Your task to perform on an android device: add a contact in the contacts app Image 0: 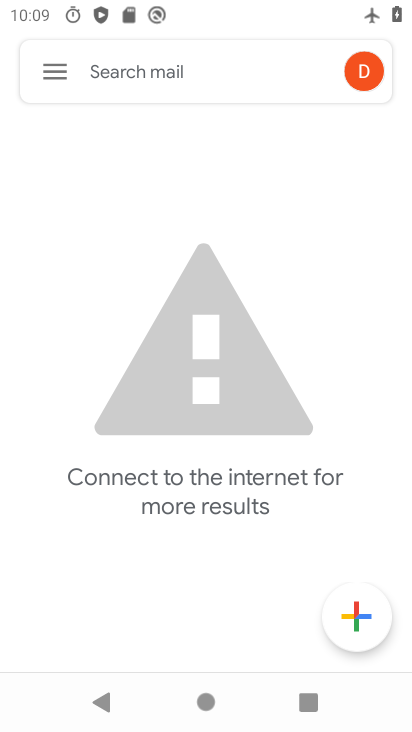
Step 0: press home button
Your task to perform on an android device: add a contact in the contacts app Image 1: 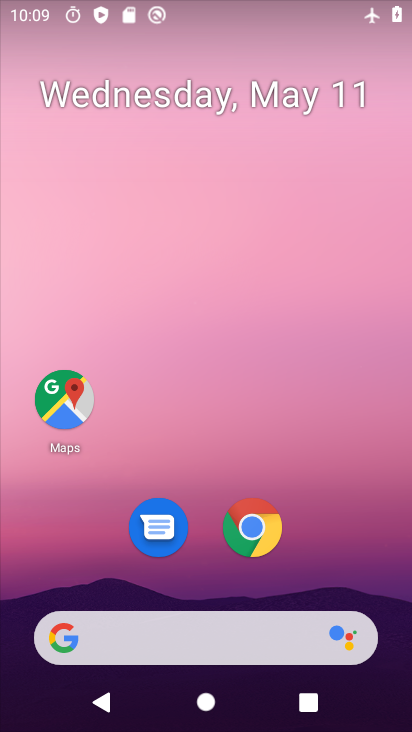
Step 1: drag from (302, 572) to (318, 301)
Your task to perform on an android device: add a contact in the contacts app Image 2: 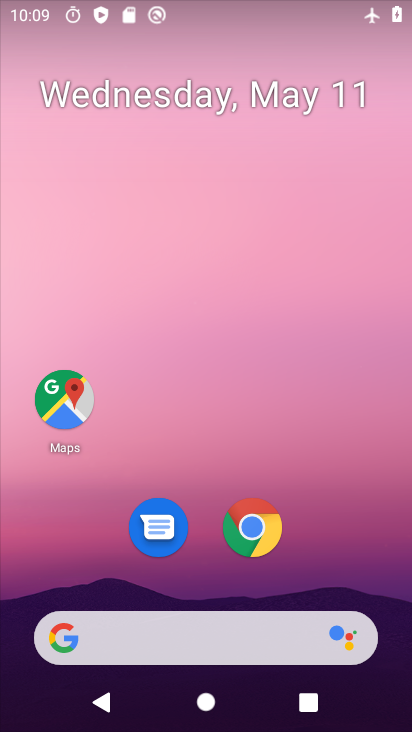
Step 2: drag from (276, 598) to (300, 277)
Your task to perform on an android device: add a contact in the contacts app Image 3: 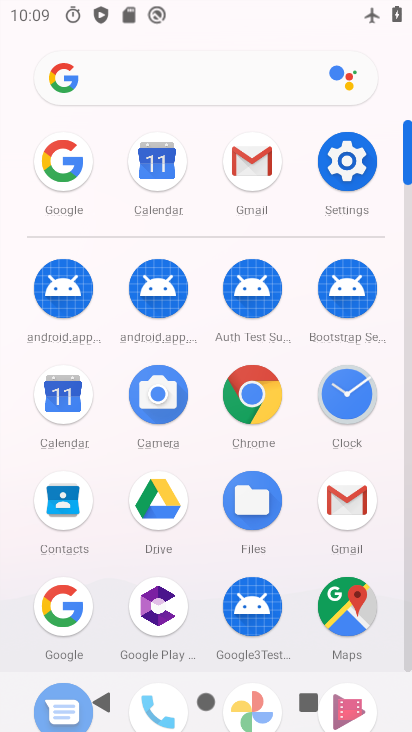
Step 3: drag from (368, 403) to (377, 276)
Your task to perform on an android device: add a contact in the contacts app Image 4: 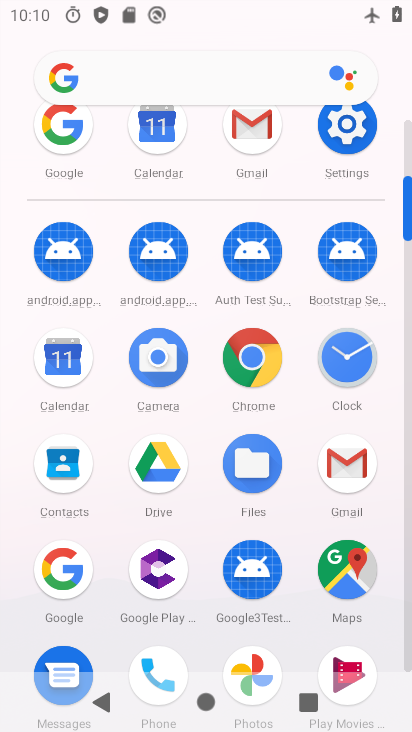
Step 4: click (69, 464)
Your task to perform on an android device: add a contact in the contacts app Image 5: 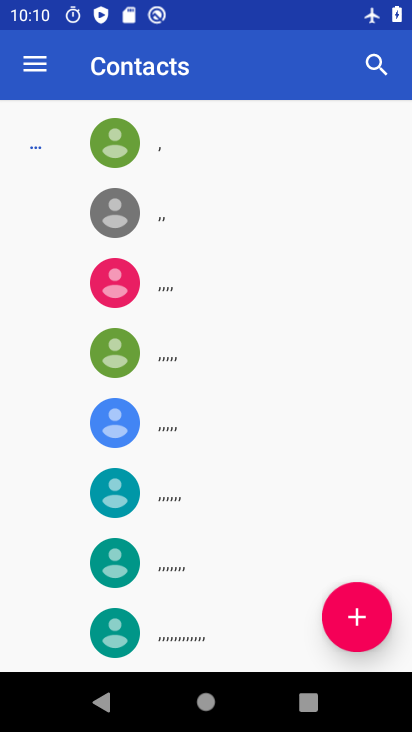
Step 5: click (337, 609)
Your task to perform on an android device: add a contact in the contacts app Image 6: 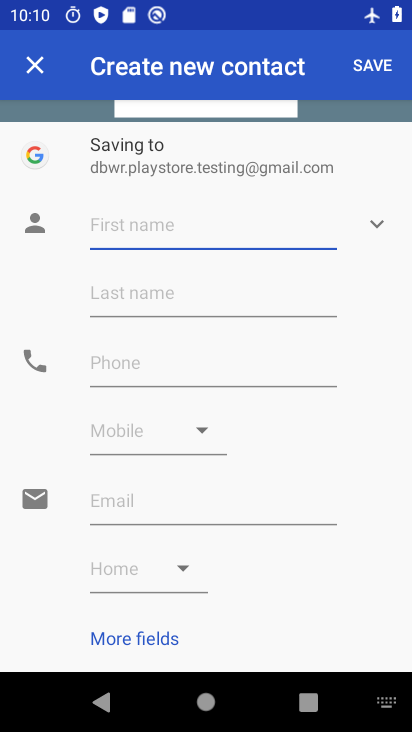
Step 6: type "google"
Your task to perform on an android device: add a contact in the contacts app Image 7: 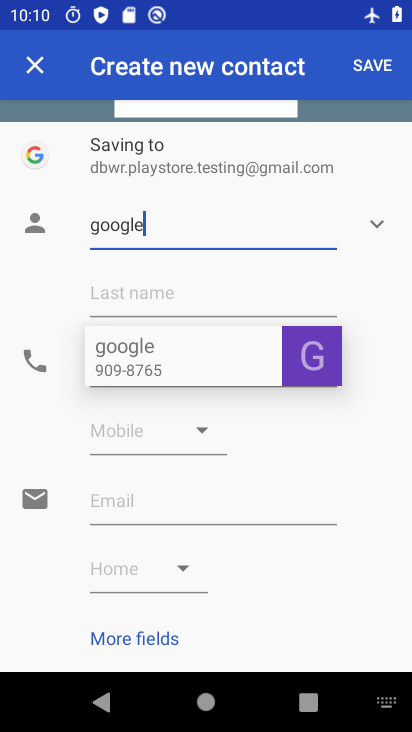
Step 7: click (215, 234)
Your task to perform on an android device: add a contact in the contacts app Image 8: 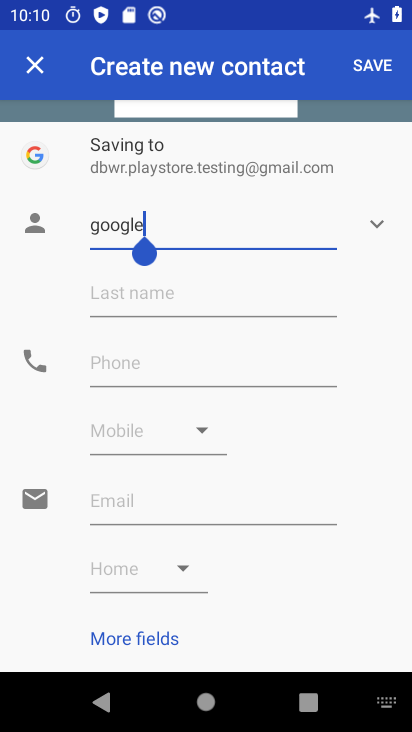
Step 8: click (215, 234)
Your task to perform on an android device: add a contact in the contacts app Image 9: 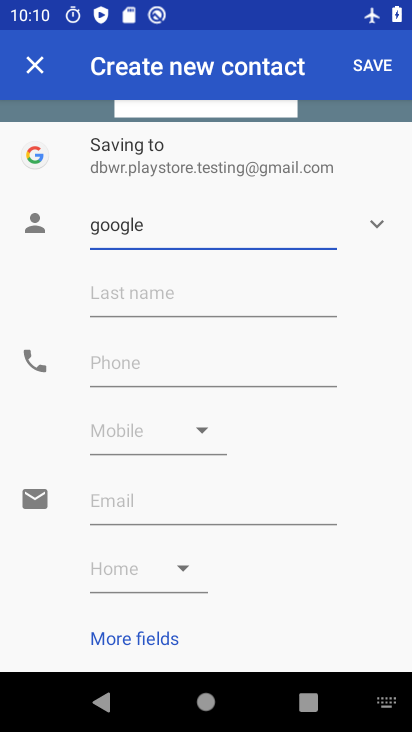
Step 9: type " ghum"
Your task to perform on an android device: add a contact in the contacts app Image 10: 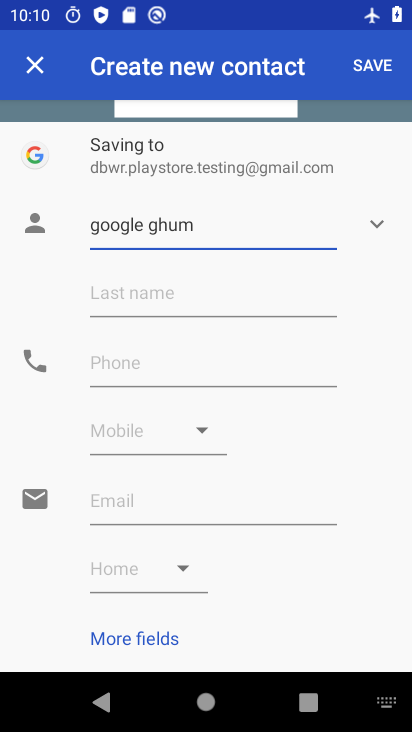
Step 10: click (162, 361)
Your task to perform on an android device: add a contact in the contacts app Image 11: 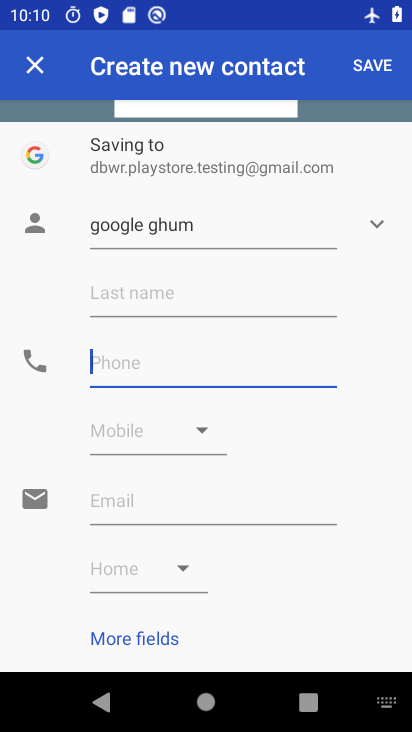
Step 11: type "98998779789"
Your task to perform on an android device: add a contact in the contacts app Image 12: 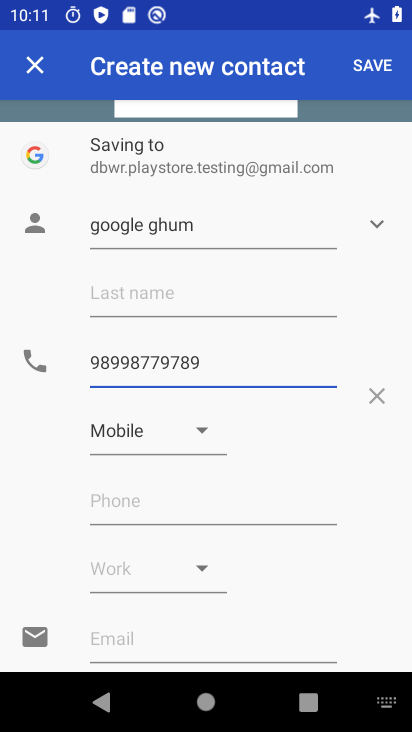
Step 12: click (350, 71)
Your task to perform on an android device: add a contact in the contacts app Image 13: 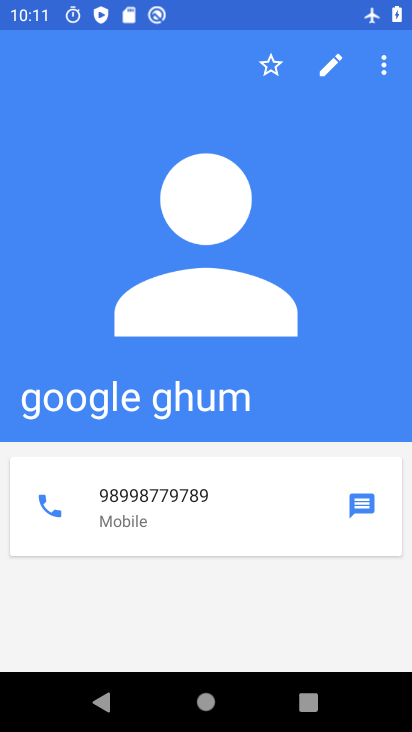
Step 13: task complete